Your task to perform on an android device: Go to Wikipedia Image 0: 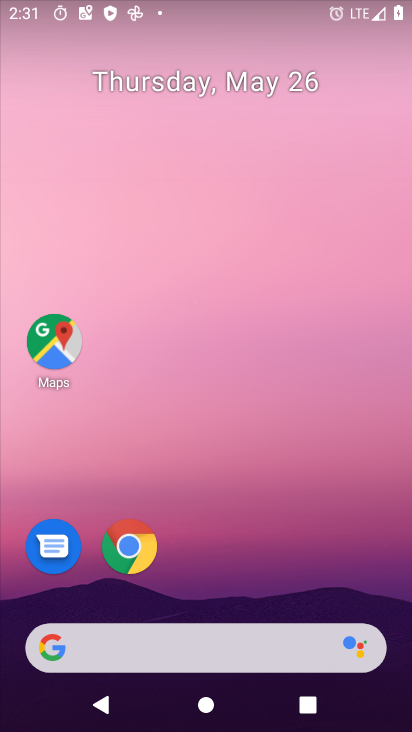
Step 0: click (127, 542)
Your task to perform on an android device: Go to Wikipedia Image 1: 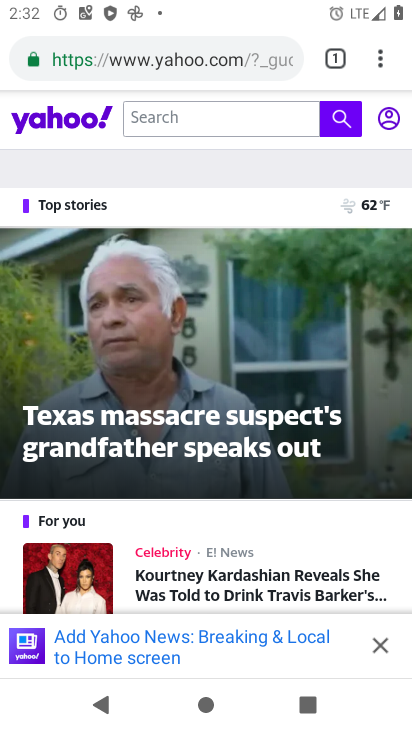
Step 1: press back button
Your task to perform on an android device: Go to Wikipedia Image 2: 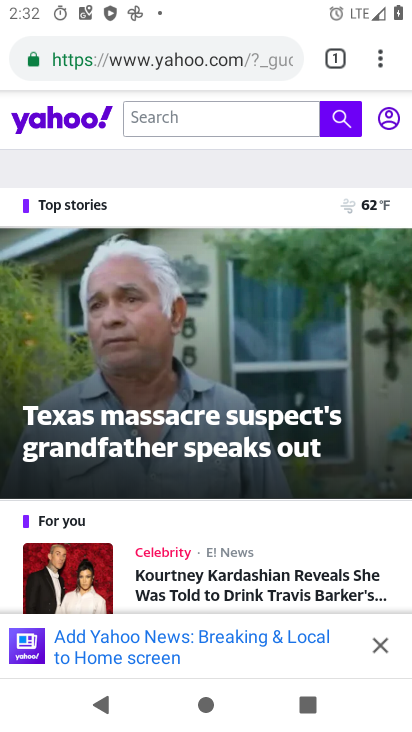
Step 2: press back button
Your task to perform on an android device: Go to Wikipedia Image 3: 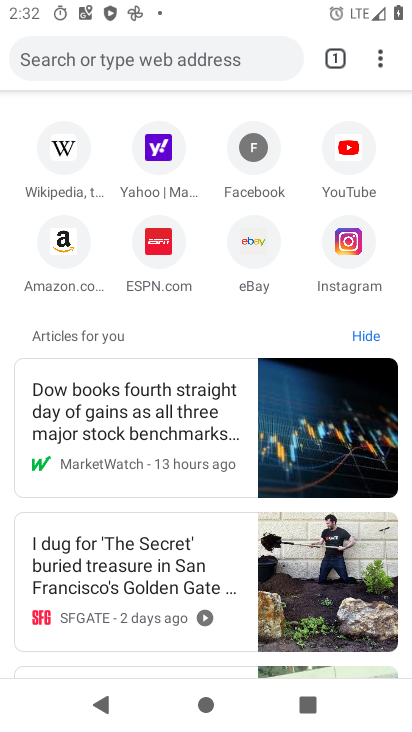
Step 3: click (65, 153)
Your task to perform on an android device: Go to Wikipedia Image 4: 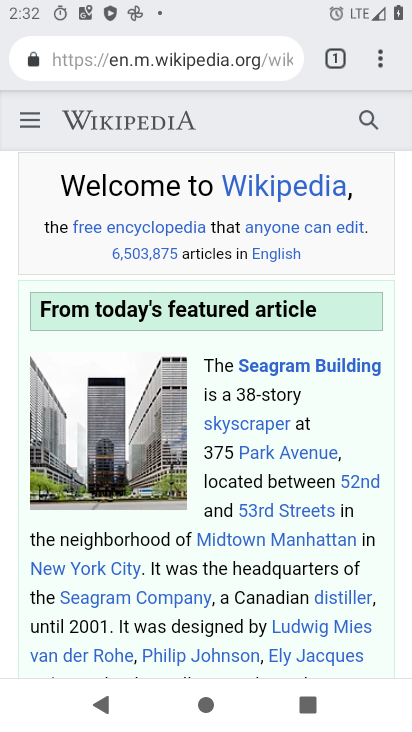
Step 4: task complete